Your task to perform on an android device: Show me recent news Image 0: 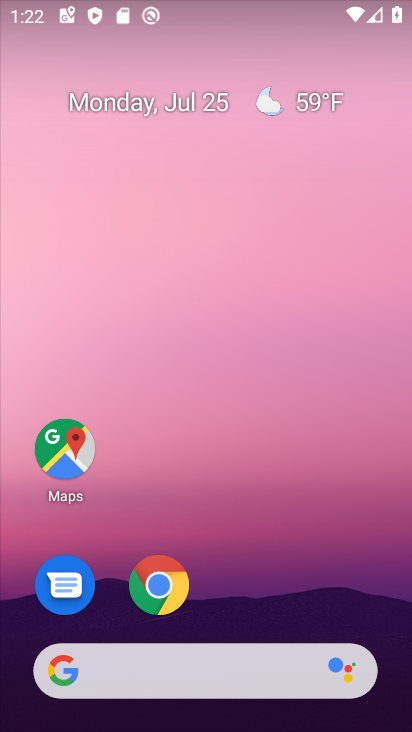
Step 0: click (193, 673)
Your task to perform on an android device: Show me recent news Image 1: 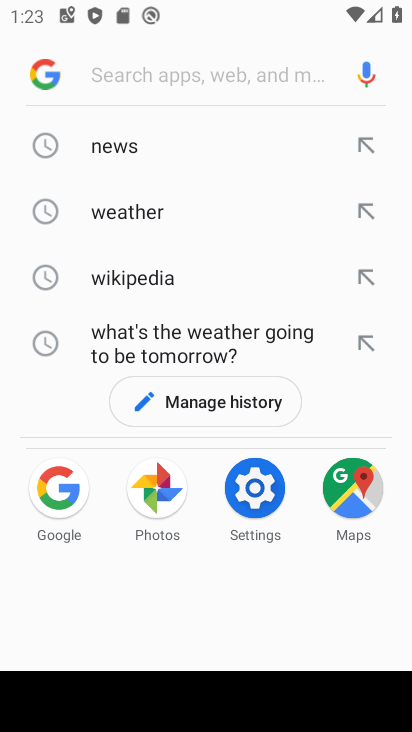
Step 1: type "recent news"
Your task to perform on an android device: Show me recent news Image 2: 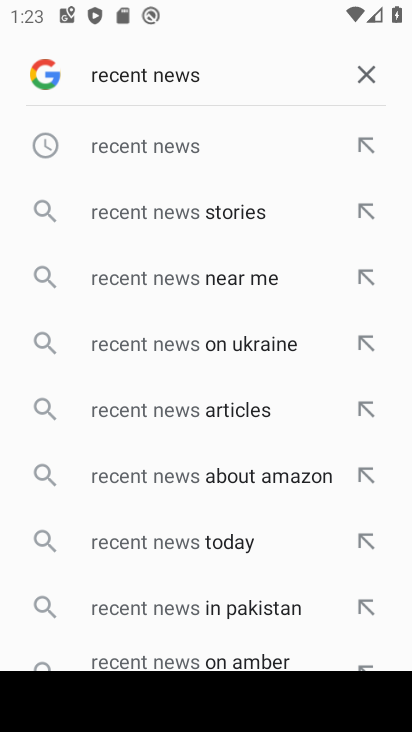
Step 2: click (180, 143)
Your task to perform on an android device: Show me recent news Image 3: 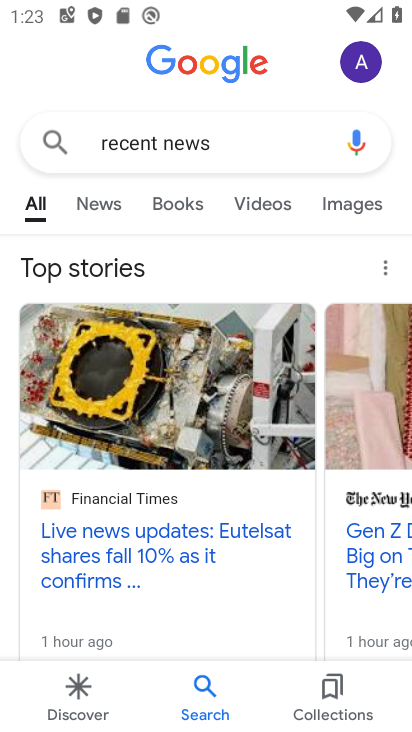
Step 3: drag from (277, 427) to (17, 410)
Your task to perform on an android device: Show me recent news Image 4: 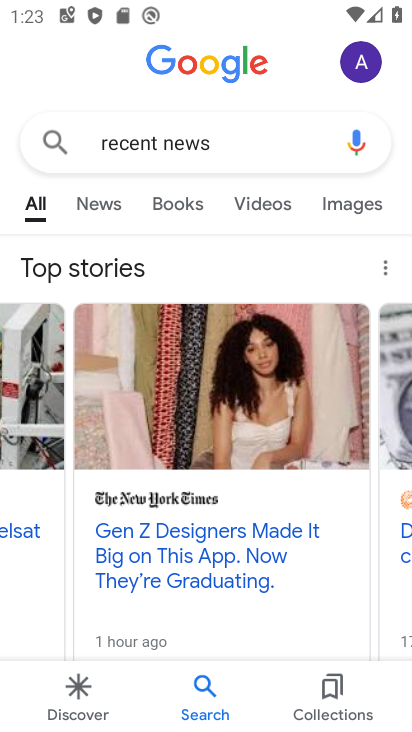
Step 4: drag from (332, 438) to (78, 441)
Your task to perform on an android device: Show me recent news Image 5: 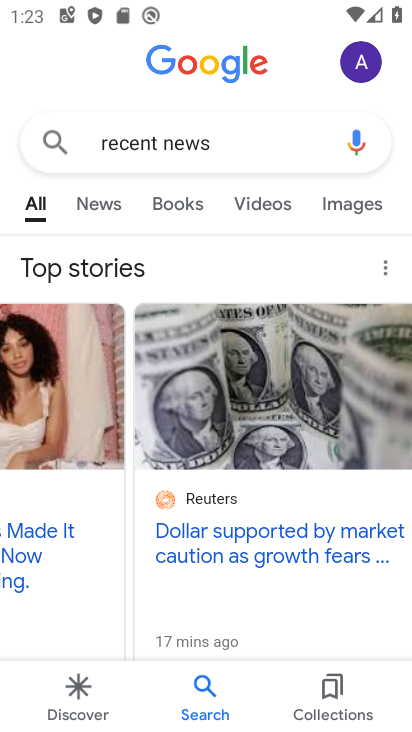
Step 5: click (232, 540)
Your task to perform on an android device: Show me recent news Image 6: 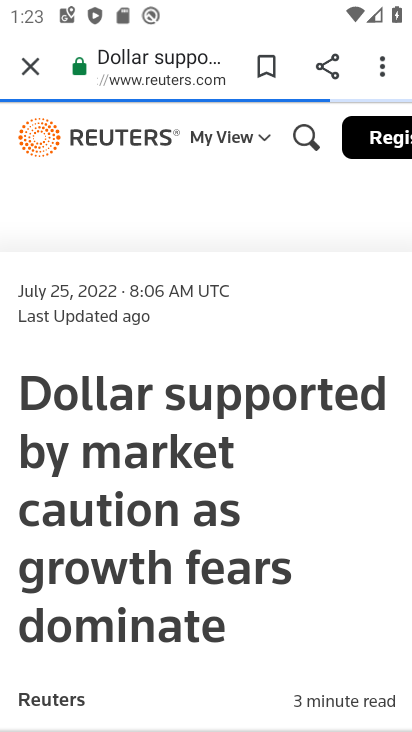
Step 6: drag from (213, 612) to (201, 70)
Your task to perform on an android device: Show me recent news Image 7: 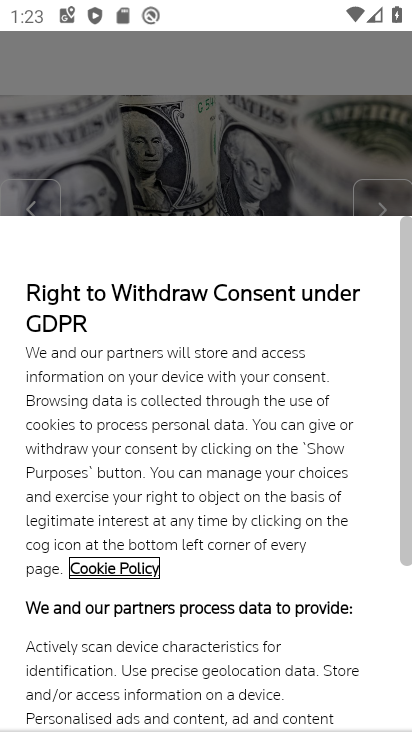
Step 7: click (232, 666)
Your task to perform on an android device: Show me recent news Image 8: 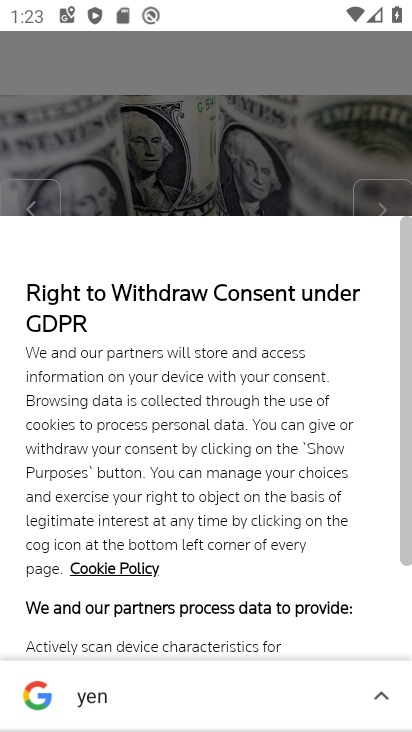
Step 8: click (310, 195)
Your task to perform on an android device: Show me recent news Image 9: 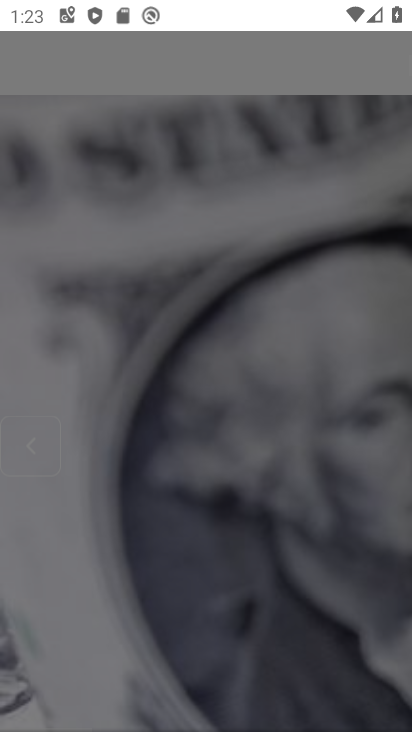
Step 9: task complete